Your task to perform on an android device: Open wifi settings Image 0: 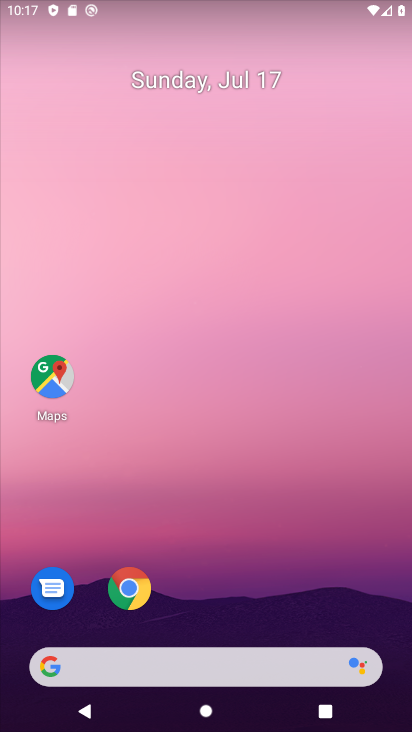
Step 0: drag from (221, 633) to (251, 140)
Your task to perform on an android device: Open wifi settings Image 1: 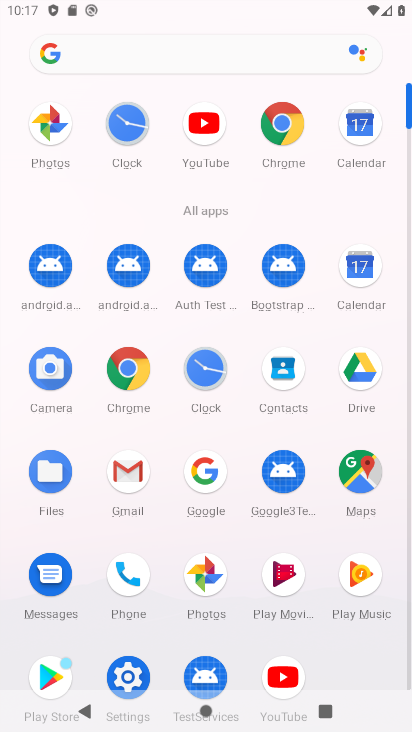
Step 1: click (116, 674)
Your task to perform on an android device: Open wifi settings Image 2: 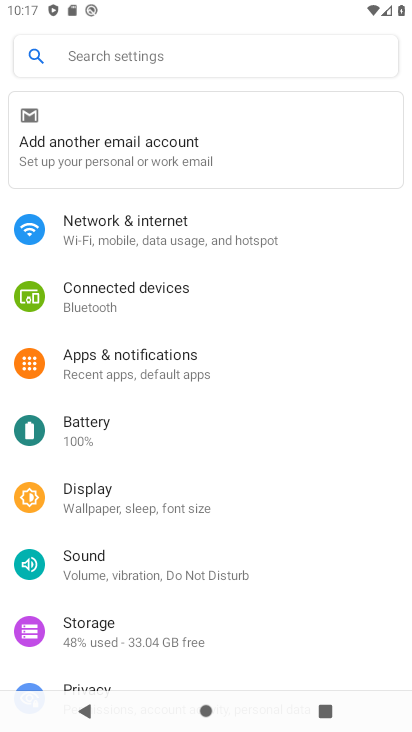
Step 2: click (200, 227)
Your task to perform on an android device: Open wifi settings Image 3: 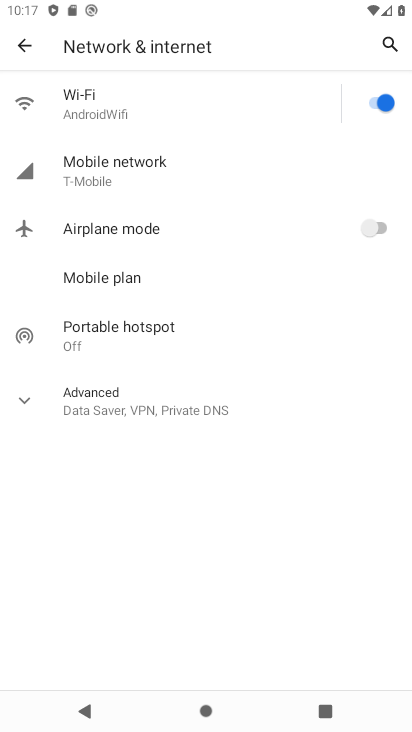
Step 3: click (153, 116)
Your task to perform on an android device: Open wifi settings Image 4: 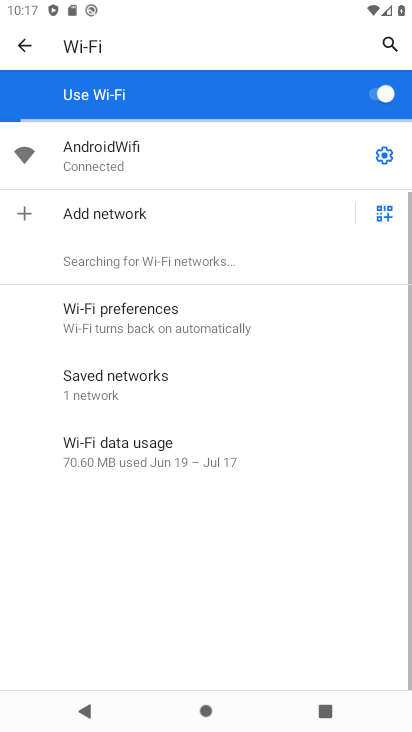
Step 4: task complete